Your task to perform on an android device: toggle data saver in the chrome app Image 0: 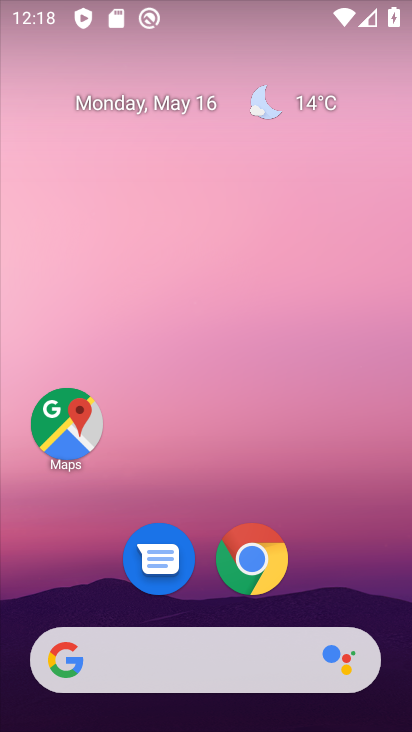
Step 0: drag from (371, 540) to (356, 485)
Your task to perform on an android device: toggle data saver in the chrome app Image 1: 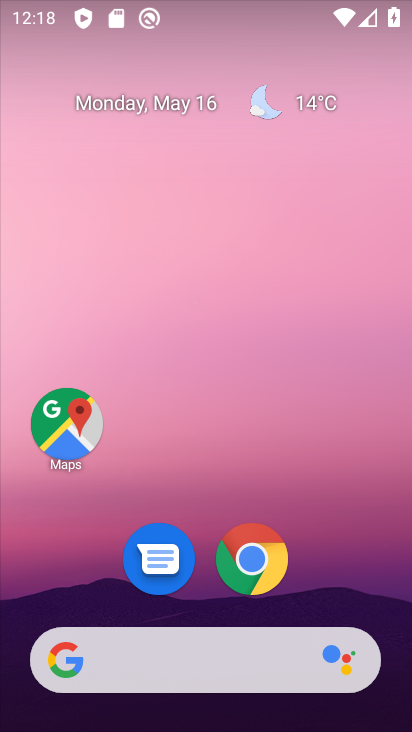
Step 1: drag from (367, 516) to (390, 96)
Your task to perform on an android device: toggle data saver in the chrome app Image 2: 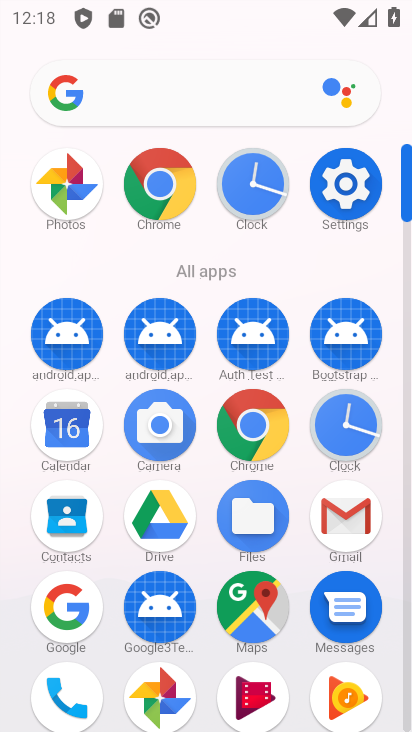
Step 2: click (175, 189)
Your task to perform on an android device: toggle data saver in the chrome app Image 3: 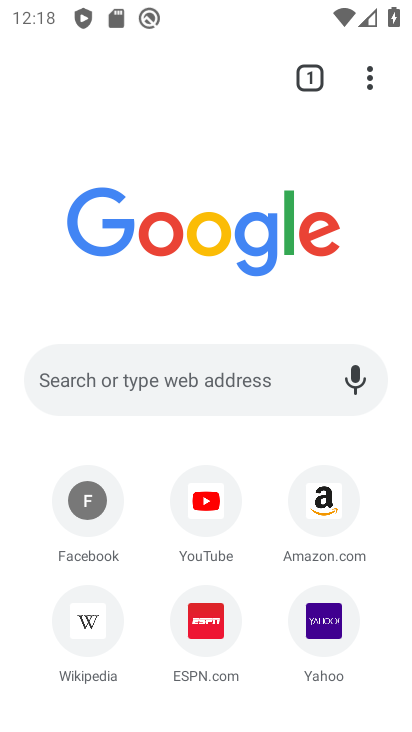
Step 3: click (368, 88)
Your task to perform on an android device: toggle data saver in the chrome app Image 4: 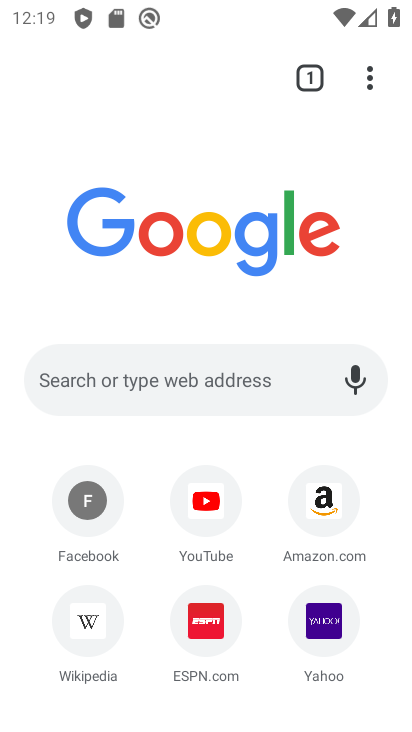
Step 4: drag from (368, 88) to (153, 624)
Your task to perform on an android device: toggle data saver in the chrome app Image 5: 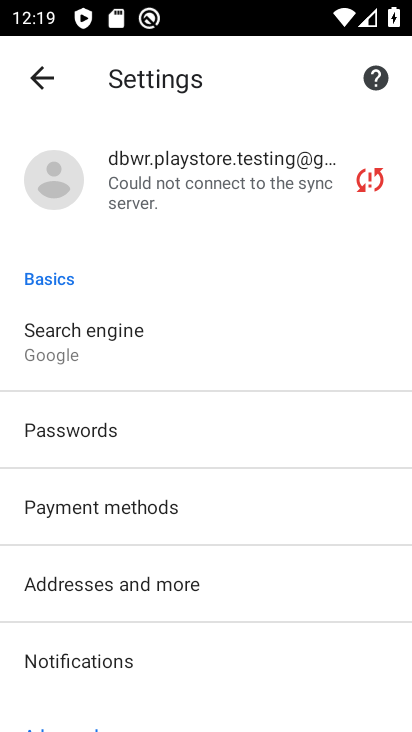
Step 5: drag from (289, 615) to (204, 195)
Your task to perform on an android device: toggle data saver in the chrome app Image 6: 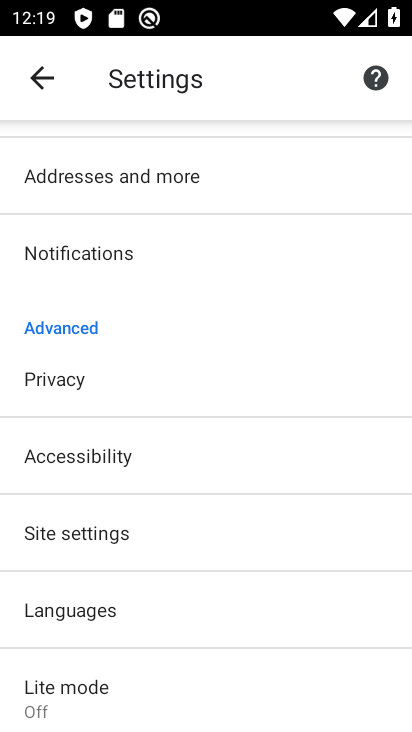
Step 6: drag from (246, 654) to (269, 243)
Your task to perform on an android device: toggle data saver in the chrome app Image 7: 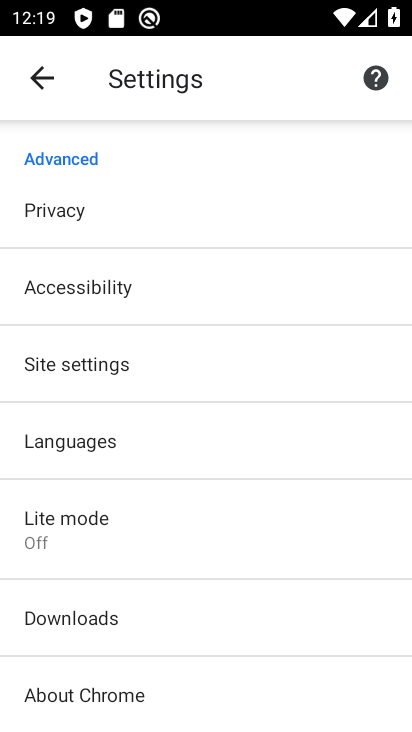
Step 7: click (182, 528)
Your task to perform on an android device: toggle data saver in the chrome app Image 8: 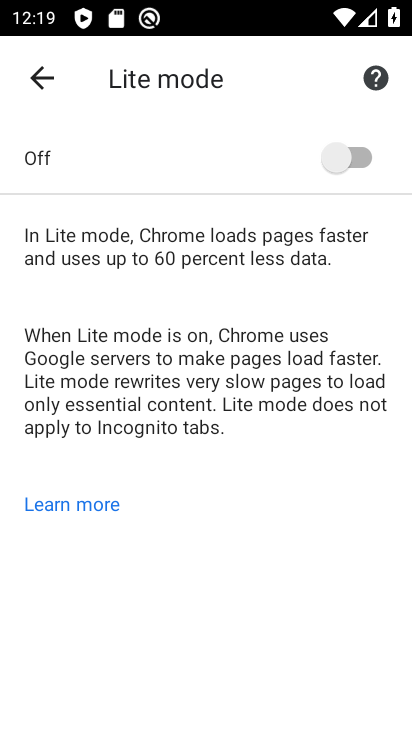
Step 8: click (372, 141)
Your task to perform on an android device: toggle data saver in the chrome app Image 9: 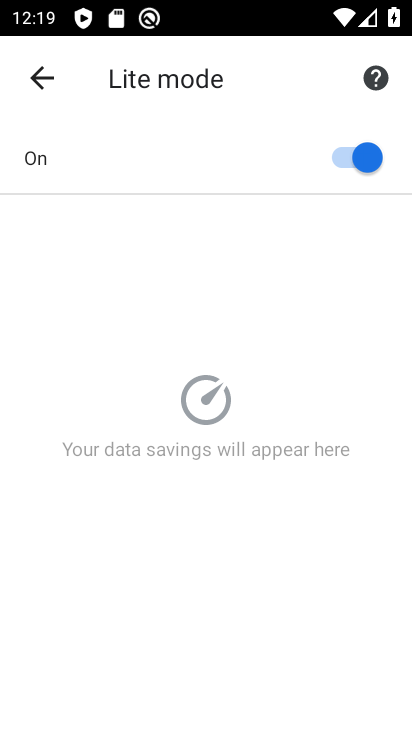
Step 9: task complete